Your task to perform on an android device: see creations saved in the google photos Image 0: 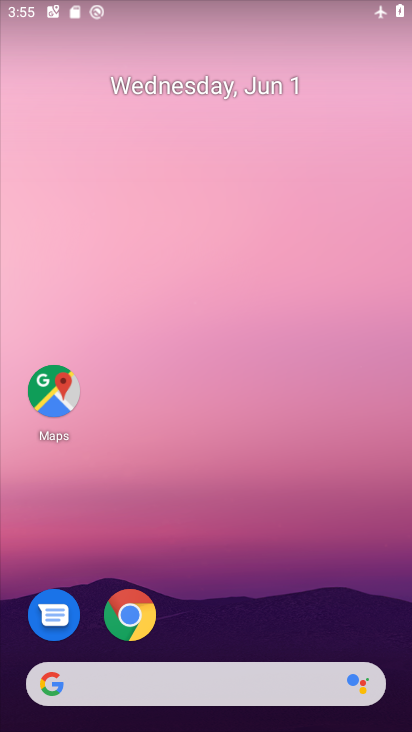
Step 0: drag from (247, 472) to (303, 128)
Your task to perform on an android device: see creations saved in the google photos Image 1: 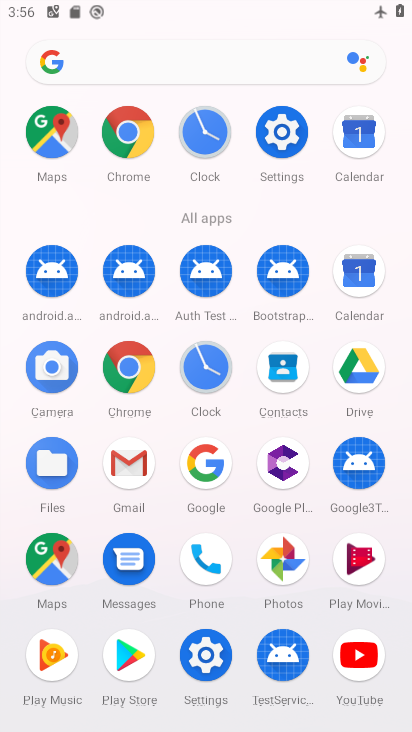
Step 1: click (281, 558)
Your task to perform on an android device: see creations saved in the google photos Image 2: 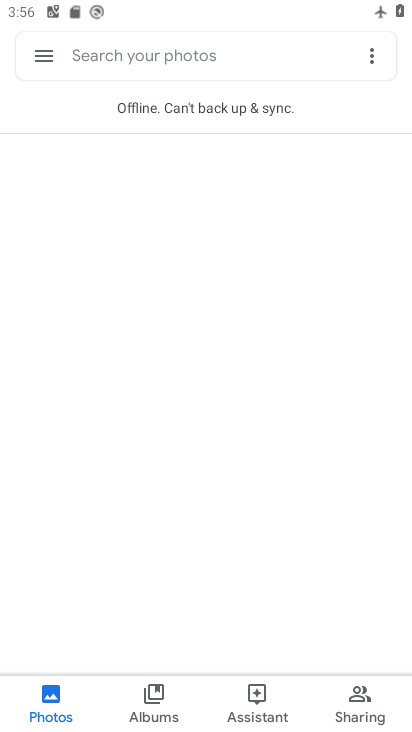
Step 2: click (261, 699)
Your task to perform on an android device: see creations saved in the google photos Image 3: 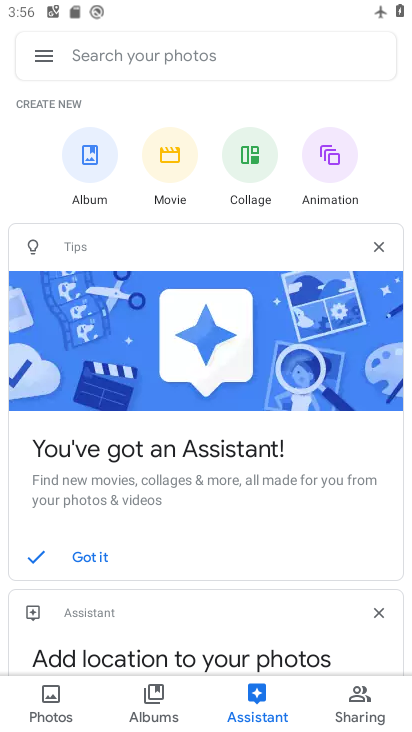
Step 3: click (341, 708)
Your task to perform on an android device: see creations saved in the google photos Image 4: 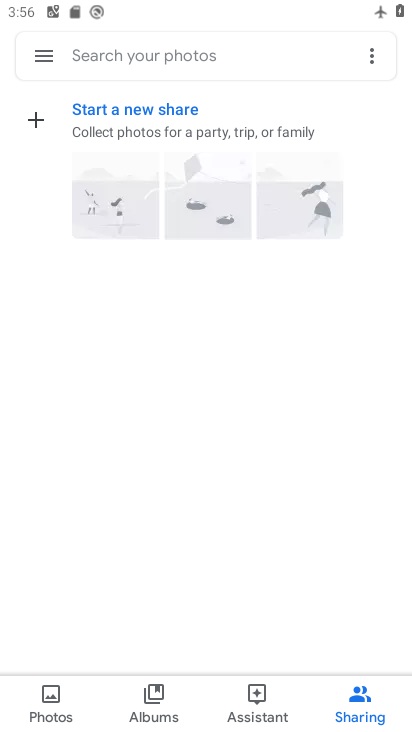
Step 4: click (162, 709)
Your task to perform on an android device: see creations saved in the google photos Image 5: 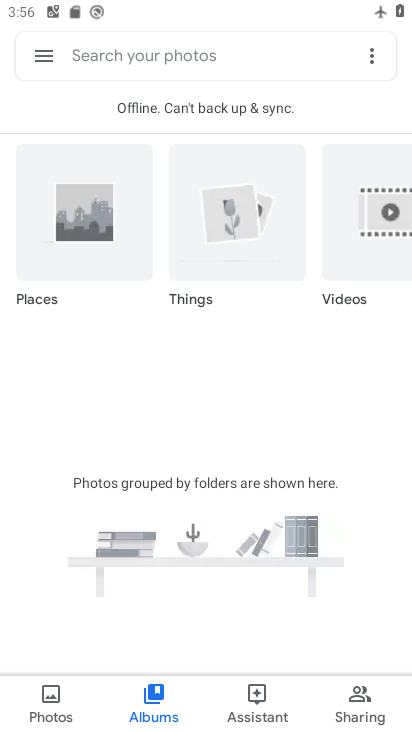
Step 5: drag from (262, 703) to (390, 387)
Your task to perform on an android device: see creations saved in the google photos Image 6: 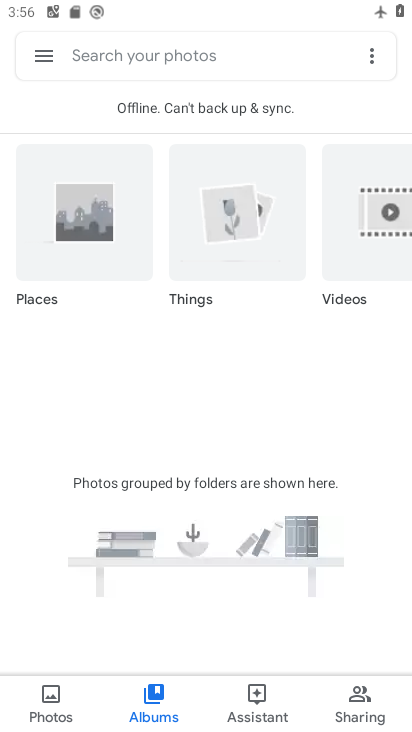
Step 6: drag from (366, 265) to (66, 273)
Your task to perform on an android device: see creations saved in the google photos Image 7: 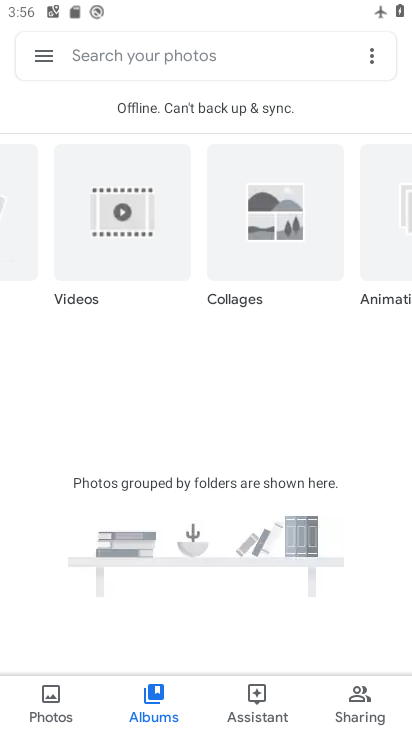
Step 7: drag from (240, 243) to (7, 276)
Your task to perform on an android device: see creations saved in the google photos Image 8: 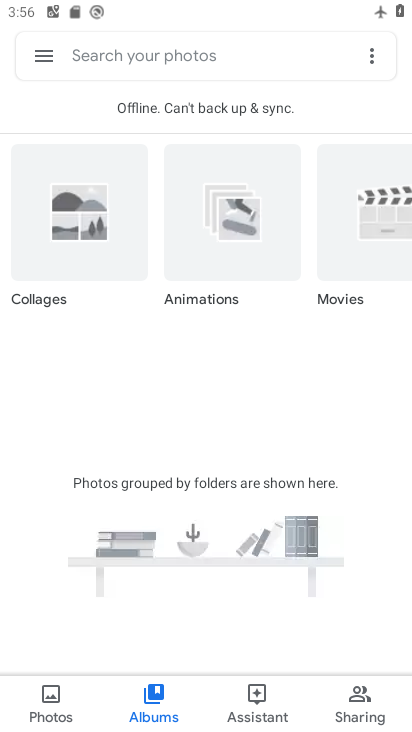
Step 8: drag from (346, 228) to (1, 239)
Your task to perform on an android device: see creations saved in the google photos Image 9: 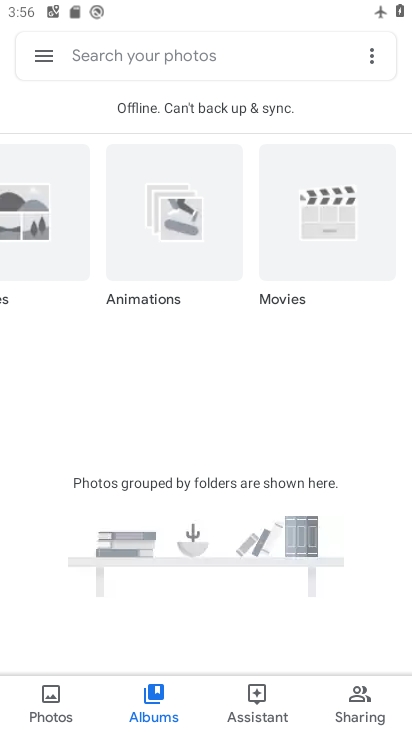
Step 9: click (271, 691)
Your task to perform on an android device: see creations saved in the google photos Image 10: 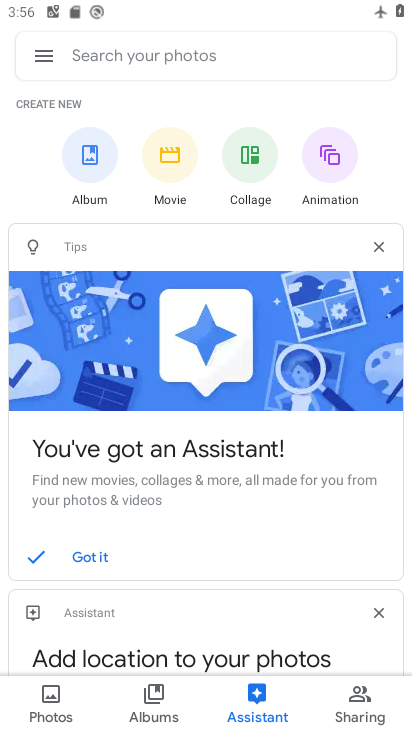
Step 10: task complete